Your task to perform on an android device: Go to privacy settings Image 0: 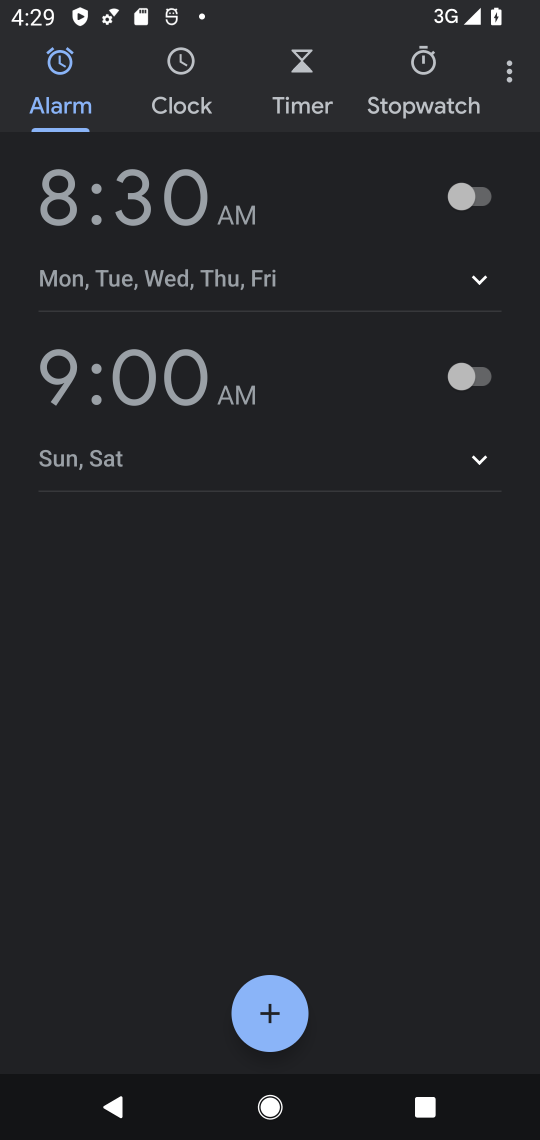
Step 0: press home button
Your task to perform on an android device: Go to privacy settings Image 1: 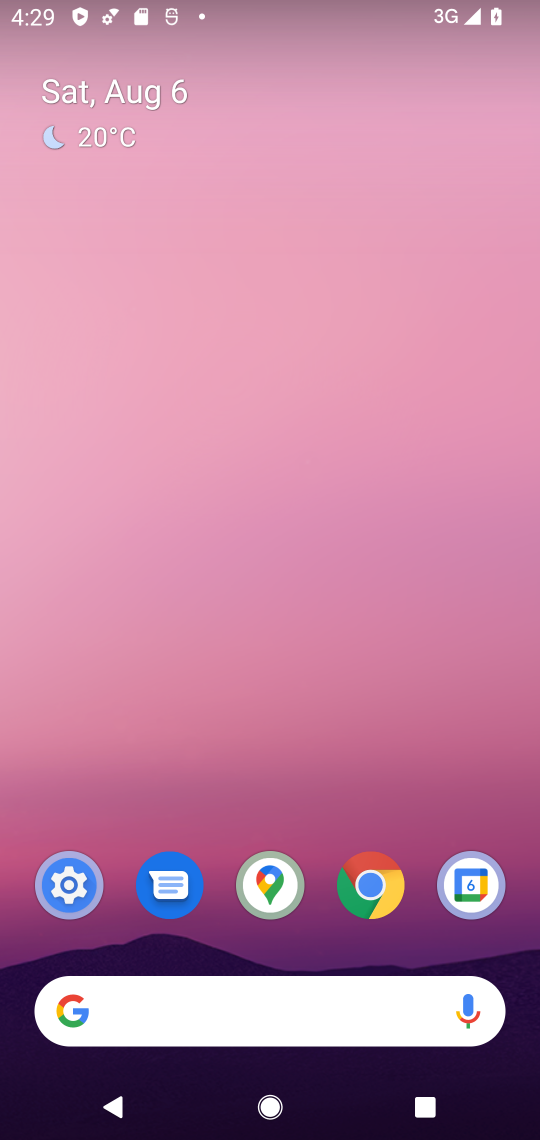
Step 1: drag from (427, 837) to (249, 35)
Your task to perform on an android device: Go to privacy settings Image 2: 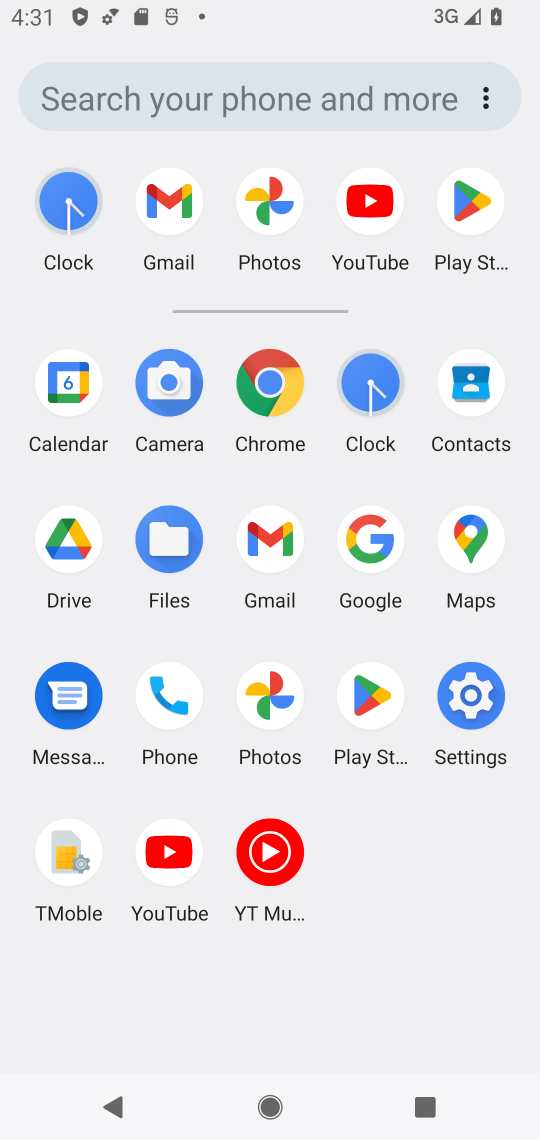
Step 2: click (465, 694)
Your task to perform on an android device: Go to privacy settings Image 3: 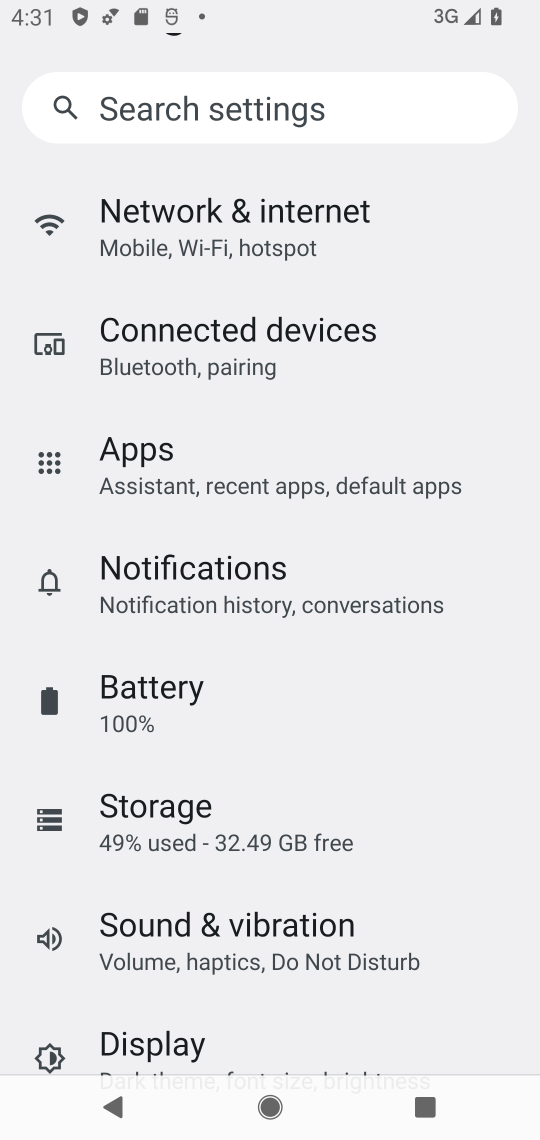
Step 3: drag from (199, 968) to (179, 286)
Your task to perform on an android device: Go to privacy settings Image 4: 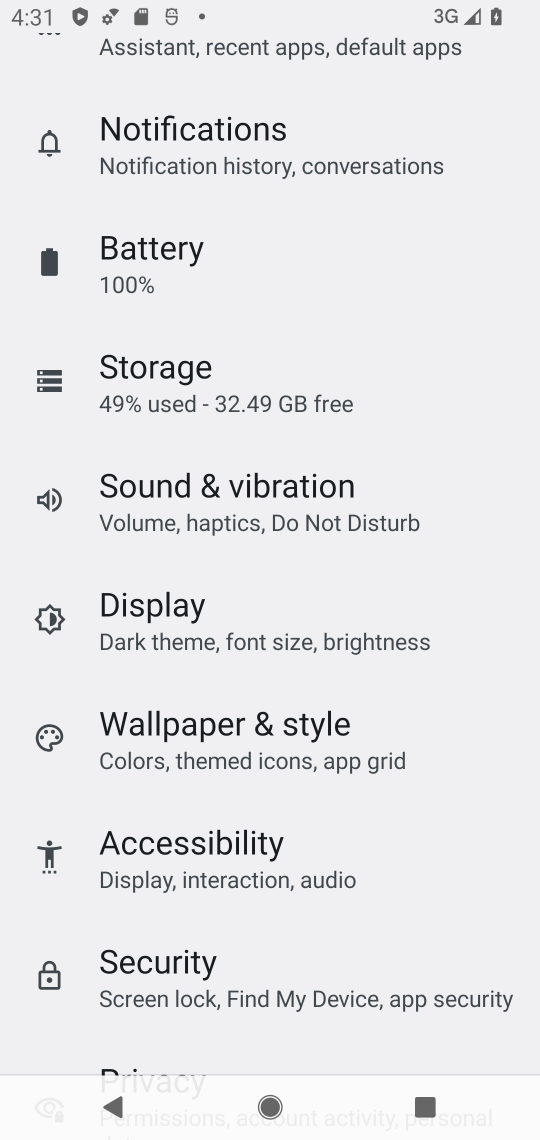
Step 4: drag from (135, 1001) to (172, 137)
Your task to perform on an android device: Go to privacy settings Image 5: 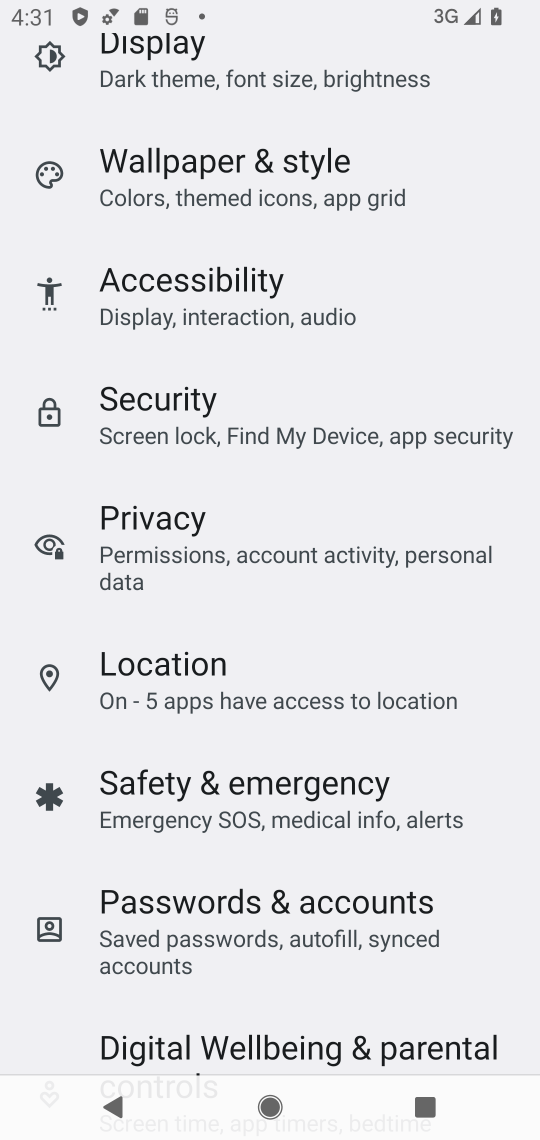
Step 5: click (212, 573)
Your task to perform on an android device: Go to privacy settings Image 6: 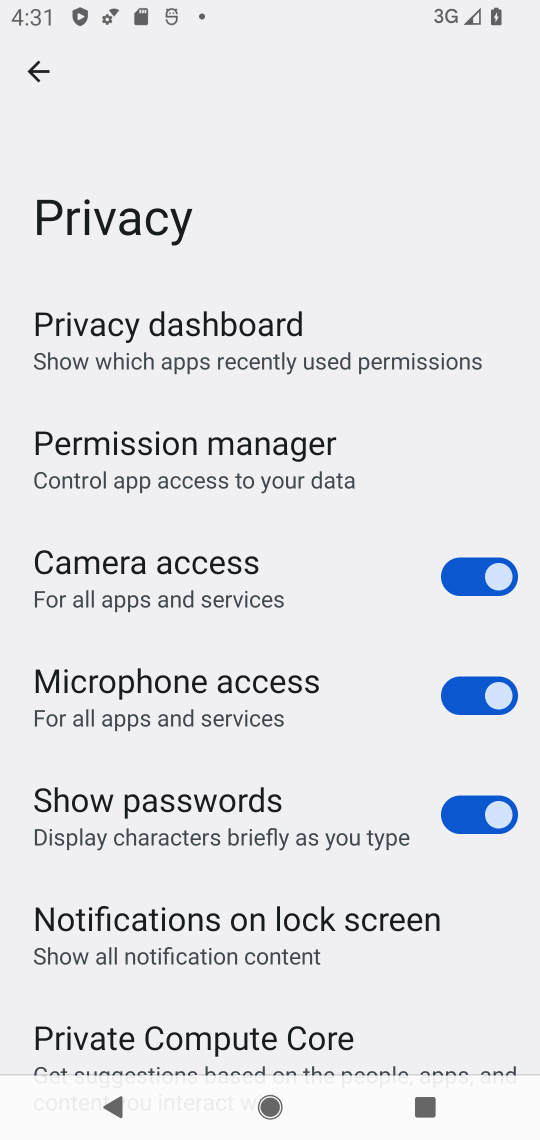
Step 6: task complete